Your task to perform on an android device: manage bookmarks in the chrome app Image 0: 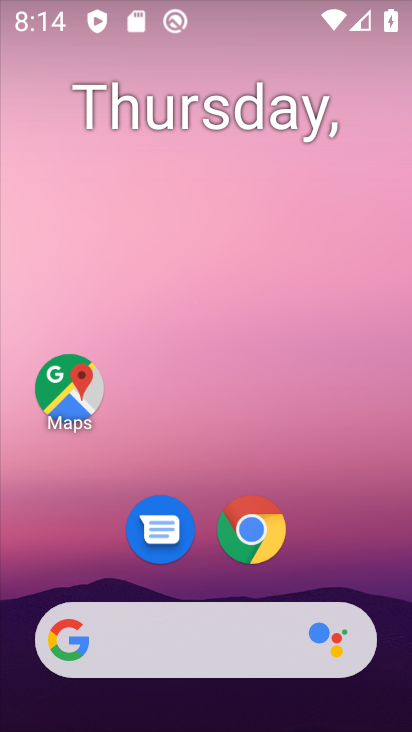
Step 0: press home button
Your task to perform on an android device: manage bookmarks in the chrome app Image 1: 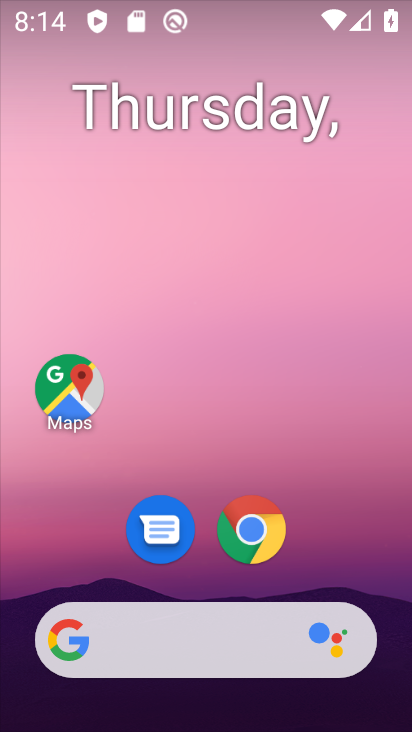
Step 1: click (246, 522)
Your task to perform on an android device: manage bookmarks in the chrome app Image 2: 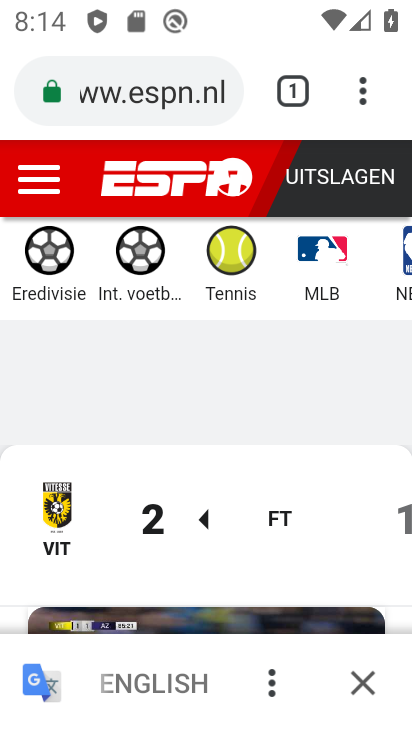
Step 2: click (360, 90)
Your task to perform on an android device: manage bookmarks in the chrome app Image 3: 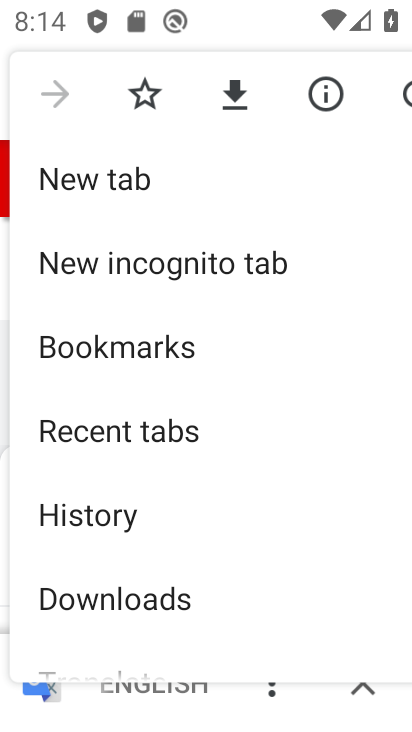
Step 3: click (201, 345)
Your task to perform on an android device: manage bookmarks in the chrome app Image 4: 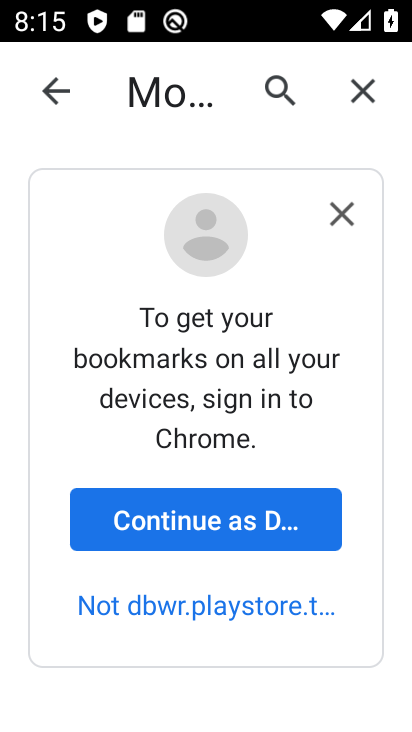
Step 4: click (197, 516)
Your task to perform on an android device: manage bookmarks in the chrome app Image 5: 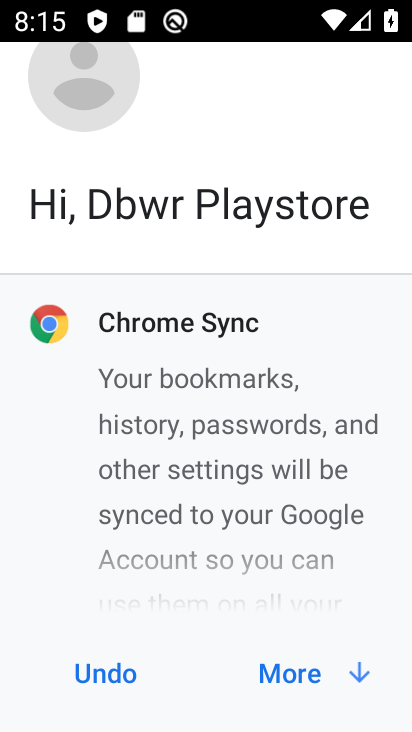
Step 5: click (308, 673)
Your task to perform on an android device: manage bookmarks in the chrome app Image 6: 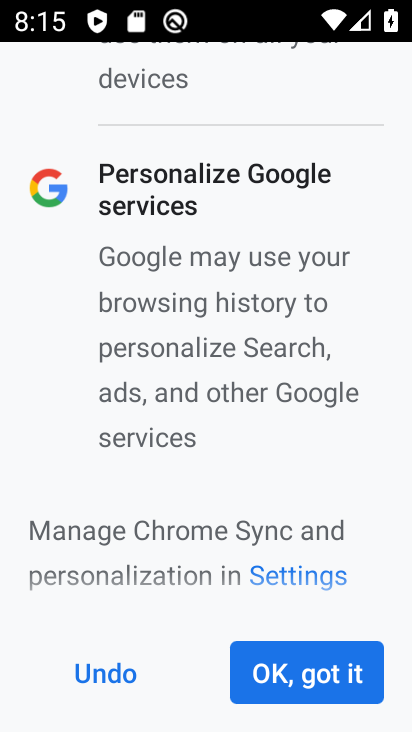
Step 6: click (308, 673)
Your task to perform on an android device: manage bookmarks in the chrome app Image 7: 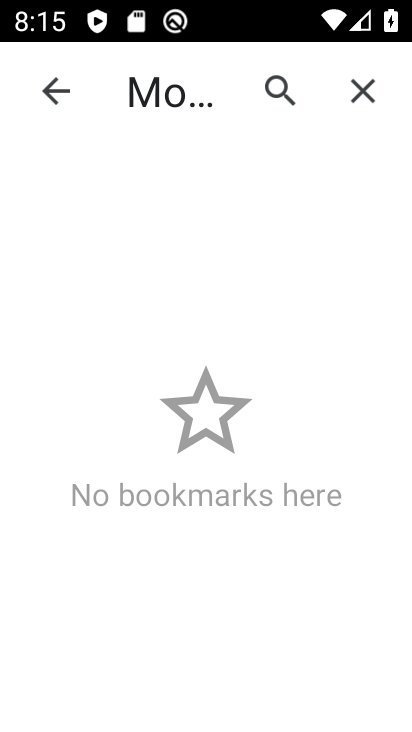
Step 7: task complete